Your task to perform on an android device: Open the Play Movies app and select the watchlist tab. Image 0: 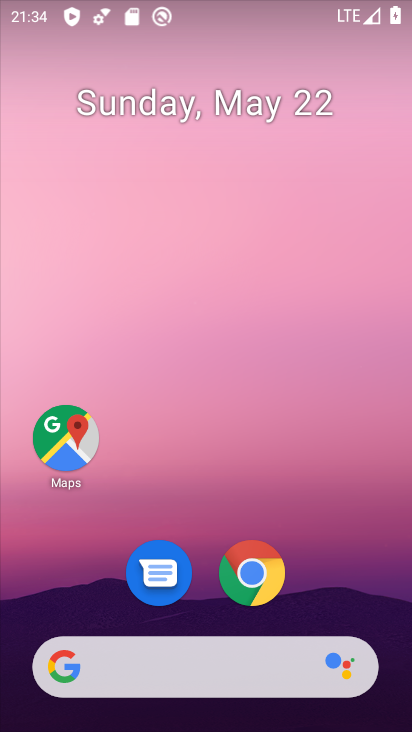
Step 0: press home button
Your task to perform on an android device: Open the Play Movies app and select the watchlist tab. Image 1: 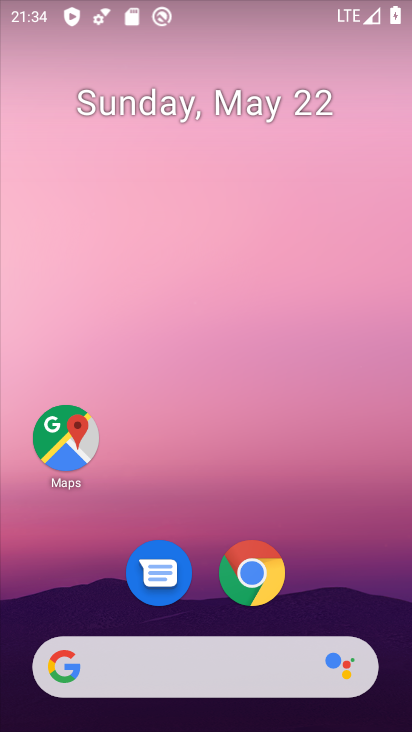
Step 1: drag from (403, 688) to (352, 465)
Your task to perform on an android device: Open the Play Movies app and select the watchlist tab. Image 2: 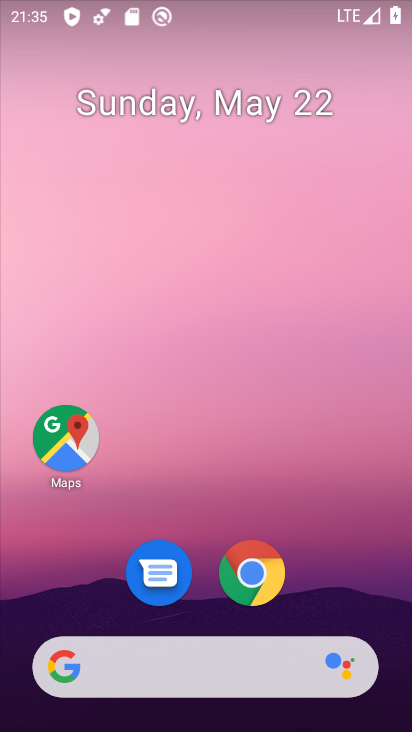
Step 2: drag from (308, 206) to (258, 4)
Your task to perform on an android device: Open the Play Movies app and select the watchlist tab. Image 3: 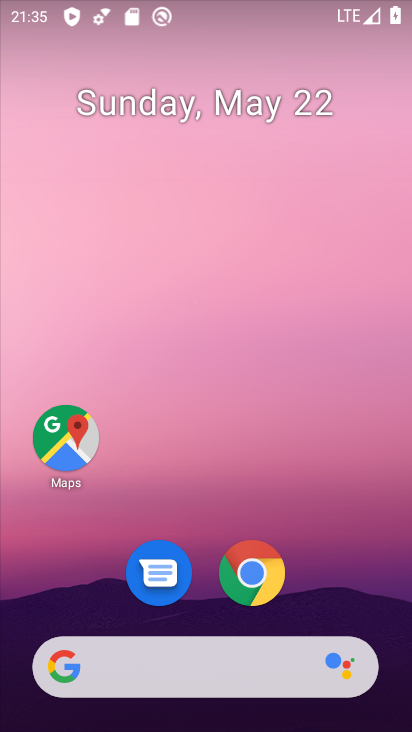
Step 3: drag from (246, 458) to (245, 115)
Your task to perform on an android device: Open the Play Movies app and select the watchlist tab. Image 4: 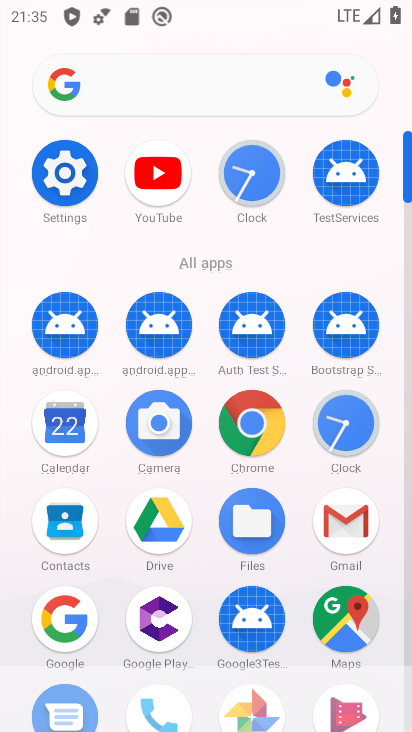
Step 4: click (407, 661)
Your task to perform on an android device: Open the Play Movies app and select the watchlist tab. Image 5: 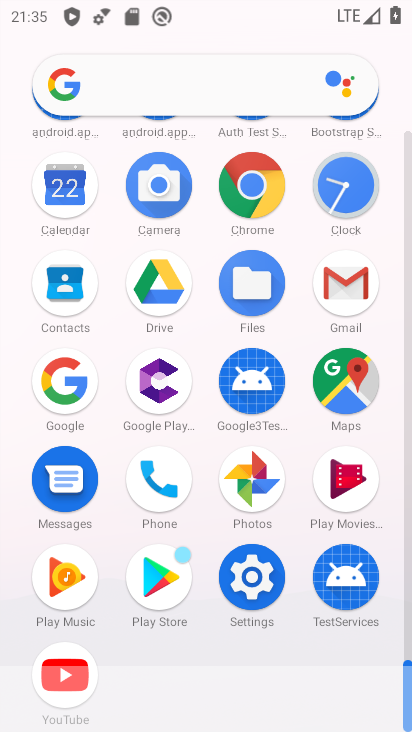
Step 5: click (339, 495)
Your task to perform on an android device: Open the Play Movies app and select the watchlist tab. Image 6: 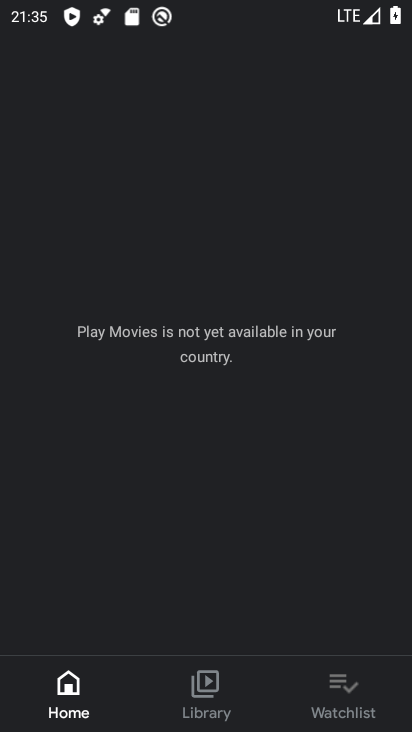
Step 6: click (382, 706)
Your task to perform on an android device: Open the Play Movies app and select the watchlist tab. Image 7: 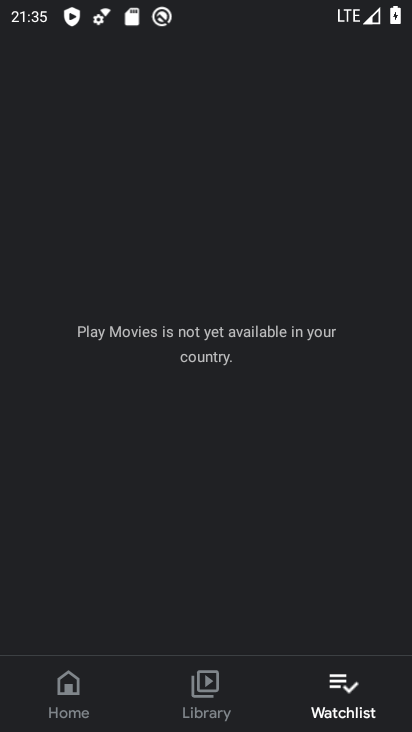
Step 7: task complete